Your task to perform on an android device: open app "Spotify: Music and Podcasts" Image 0: 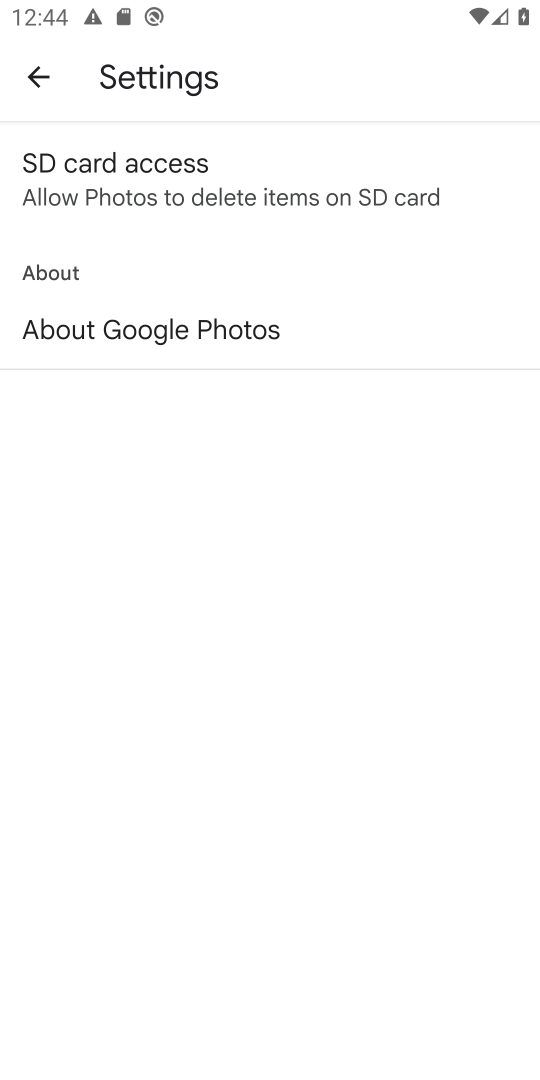
Step 0: press home button
Your task to perform on an android device: open app "Spotify: Music and Podcasts" Image 1: 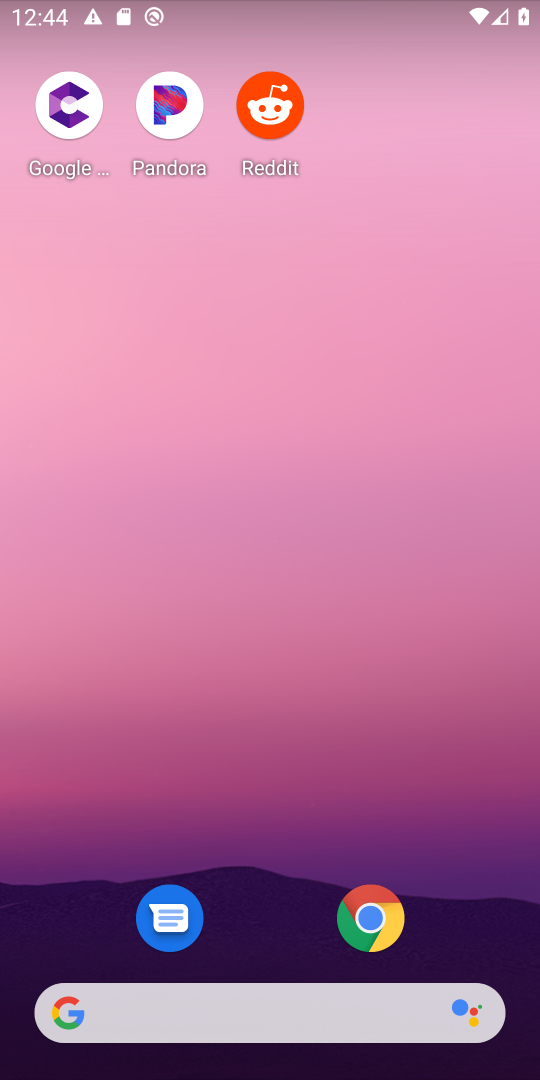
Step 1: drag from (290, 936) to (391, 2)
Your task to perform on an android device: open app "Spotify: Music and Podcasts" Image 2: 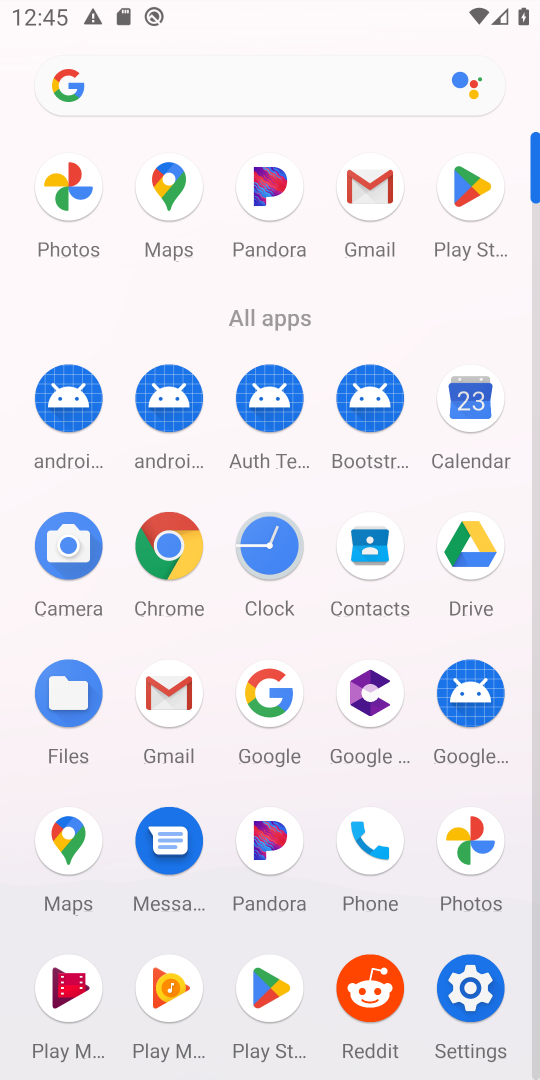
Step 2: click (469, 175)
Your task to perform on an android device: open app "Spotify: Music and Podcasts" Image 3: 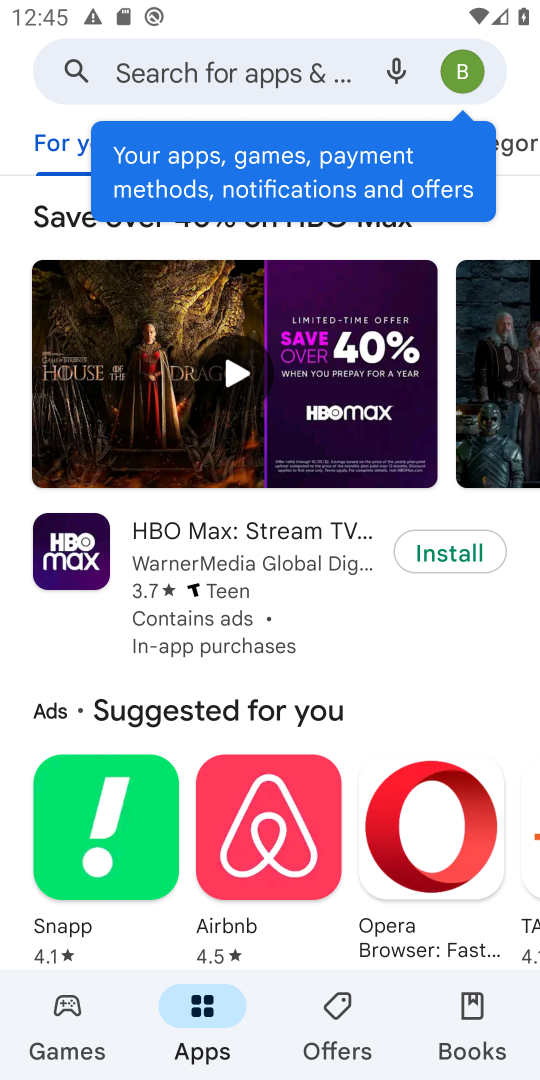
Step 3: click (190, 71)
Your task to perform on an android device: open app "Spotify: Music and Podcasts" Image 4: 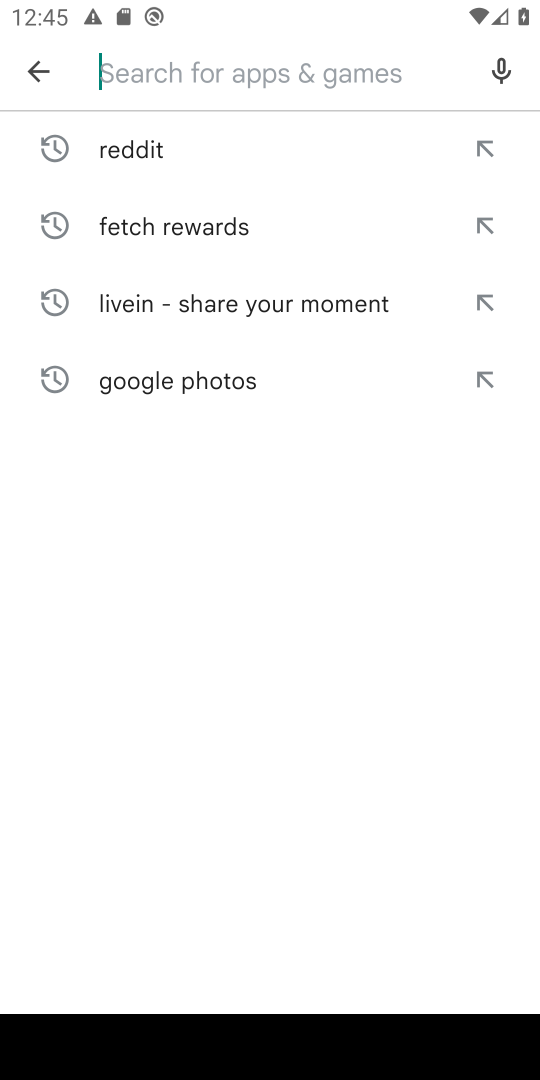
Step 4: type "Spotify: Music and Podcasts"
Your task to perform on an android device: open app "Spotify: Music and Podcasts" Image 5: 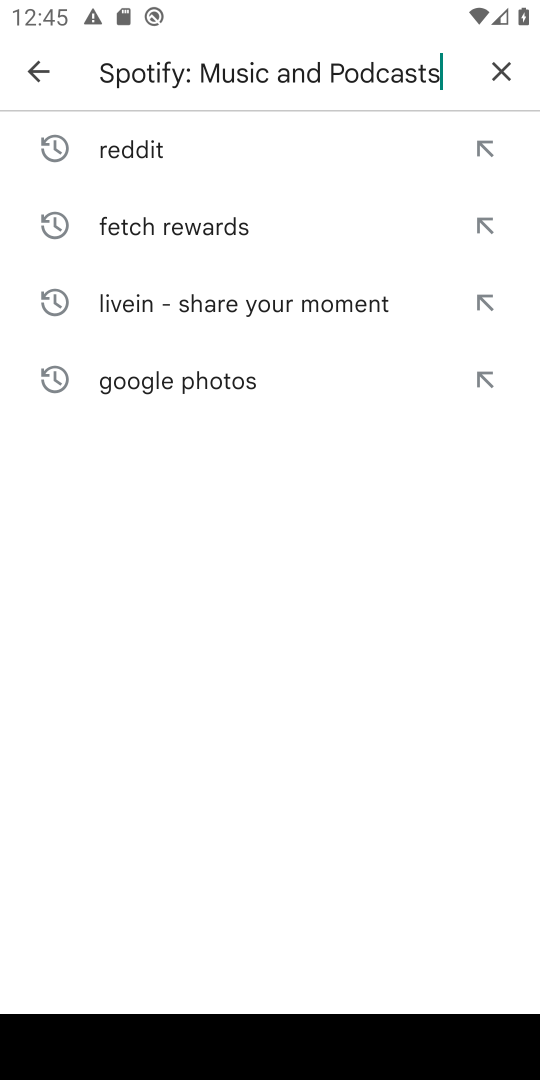
Step 5: type ""
Your task to perform on an android device: open app "Spotify: Music and Podcasts" Image 6: 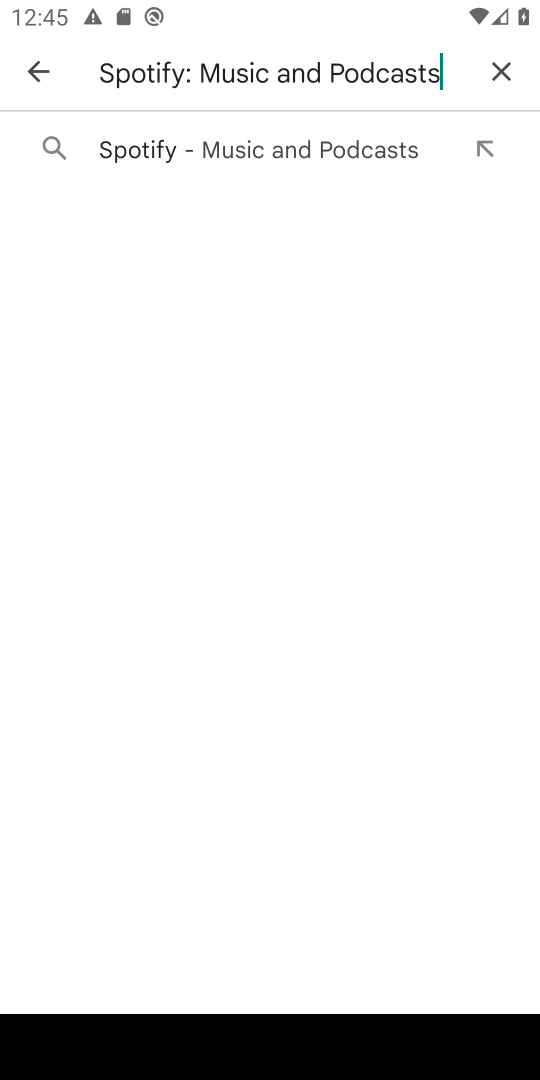
Step 6: click (220, 150)
Your task to perform on an android device: open app "Spotify: Music and Podcasts" Image 7: 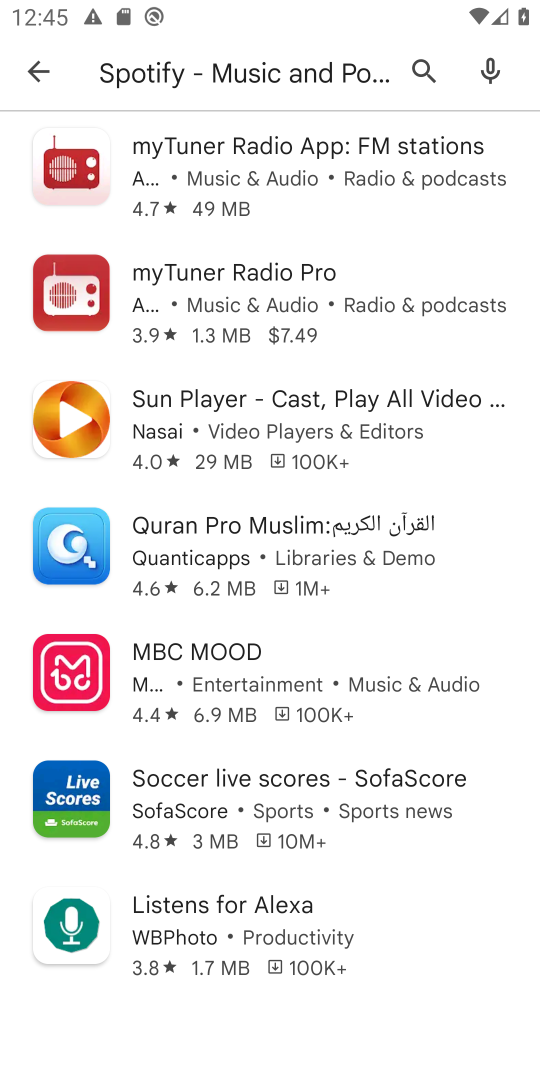
Step 7: task complete